Your task to perform on an android device: Open the map Image 0: 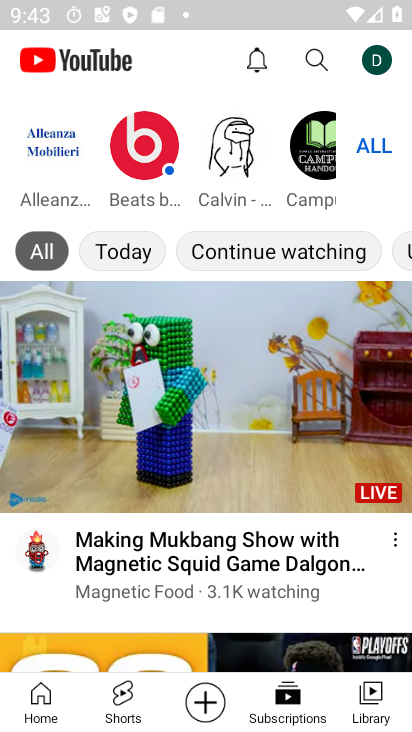
Step 0: press home button
Your task to perform on an android device: Open the map Image 1: 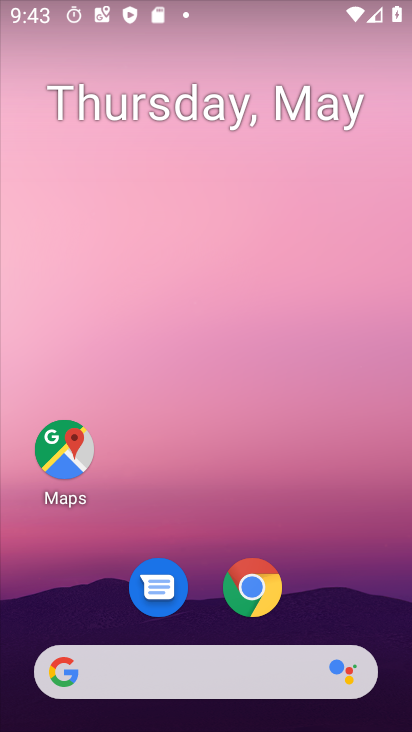
Step 1: click (64, 451)
Your task to perform on an android device: Open the map Image 2: 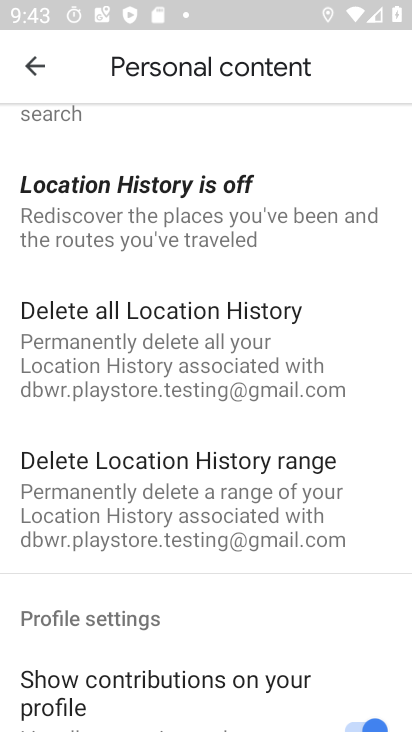
Step 2: click (40, 78)
Your task to perform on an android device: Open the map Image 3: 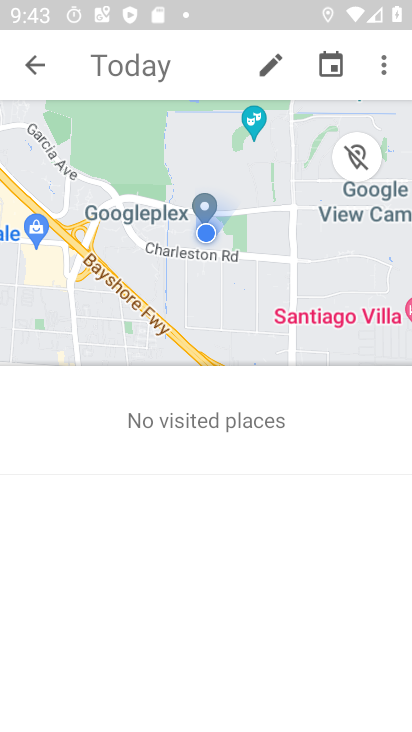
Step 3: click (40, 78)
Your task to perform on an android device: Open the map Image 4: 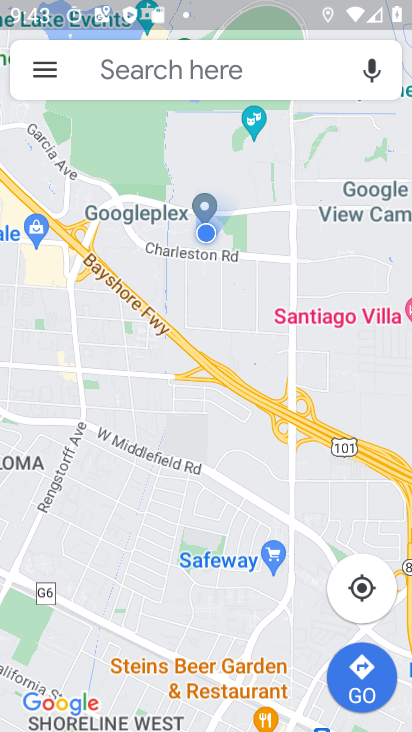
Step 4: task complete